Your task to perform on an android device: choose inbox layout in the gmail app Image 0: 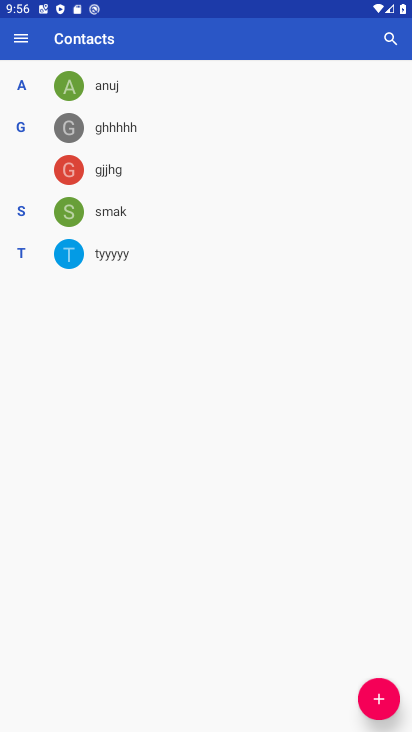
Step 0: press home button
Your task to perform on an android device: choose inbox layout in the gmail app Image 1: 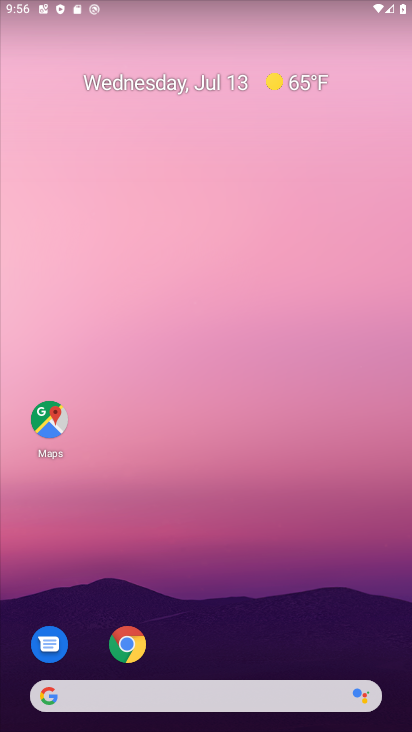
Step 1: drag from (222, 593) to (358, 6)
Your task to perform on an android device: choose inbox layout in the gmail app Image 2: 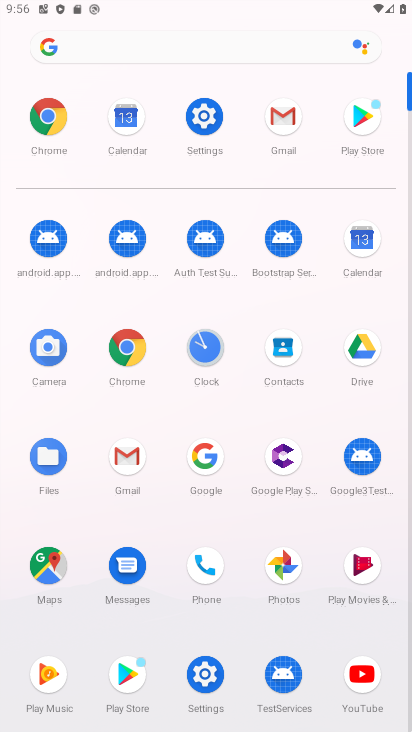
Step 2: click (280, 137)
Your task to perform on an android device: choose inbox layout in the gmail app Image 3: 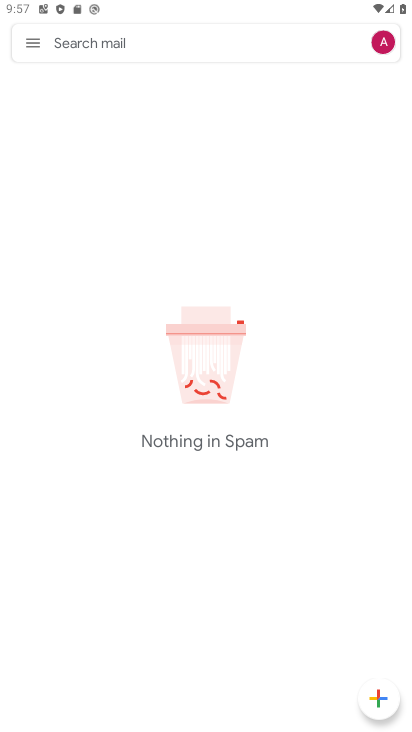
Step 3: click (29, 48)
Your task to perform on an android device: choose inbox layout in the gmail app Image 4: 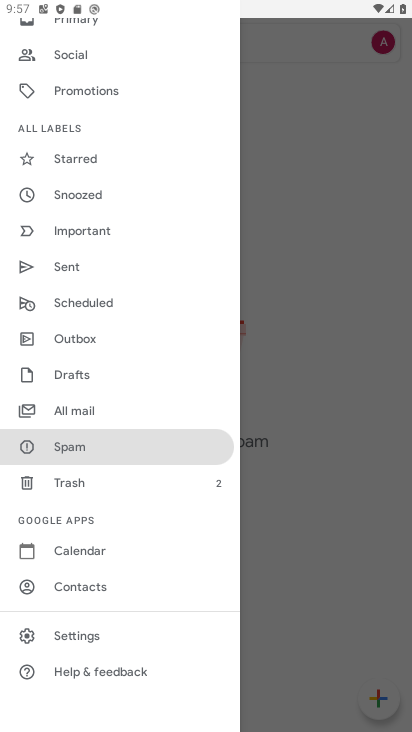
Step 4: drag from (86, 685) to (163, 315)
Your task to perform on an android device: choose inbox layout in the gmail app Image 5: 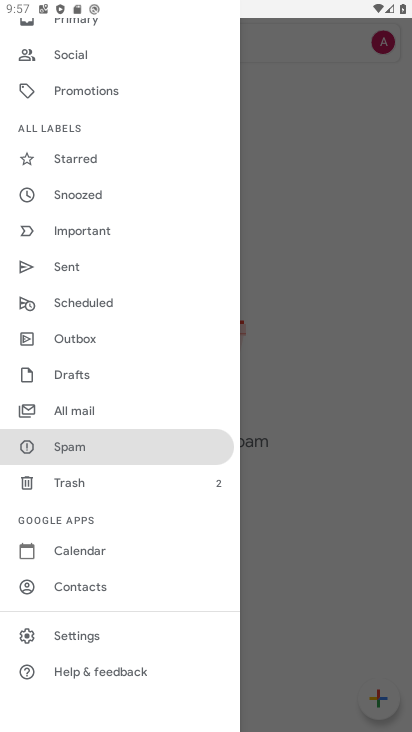
Step 5: click (68, 634)
Your task to perform on an android device: choose inbox layout in the gmail app Image 6: 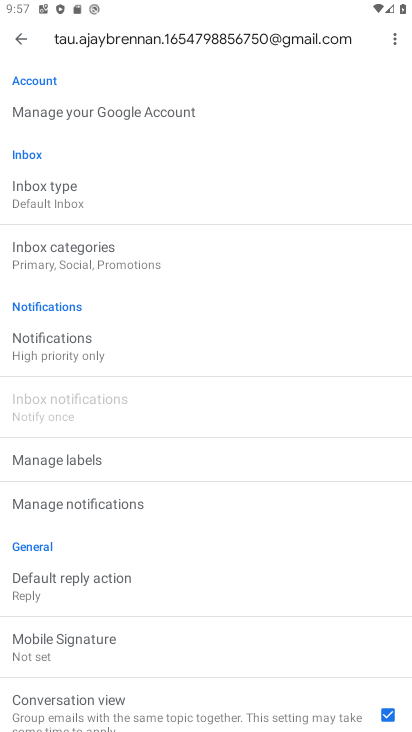
Step 6: click (69, 195)
Your task to perform on an android device: choose inbox layout in the gmail app Image 7: 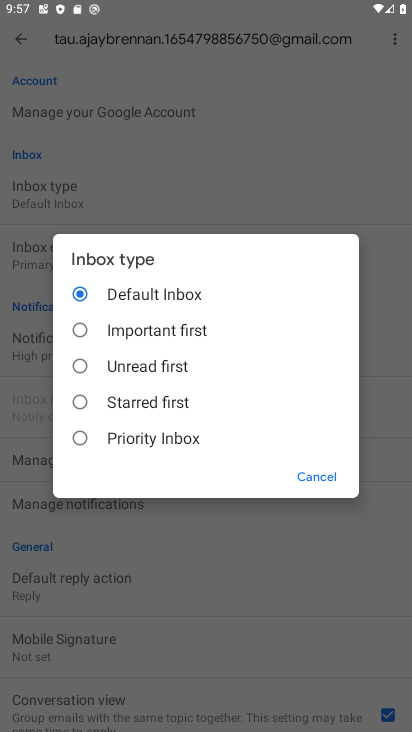
Step 7: click (153, 326)
Your task to perform on an android device: choose inbox layout in the gmail app Image 8: 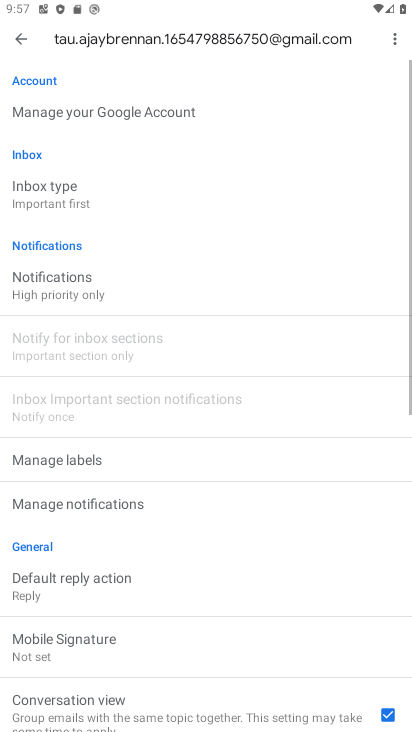
Step 8: task complete